Your task to perform on an android device: turn on showing notifications on the lock screen Image 0: 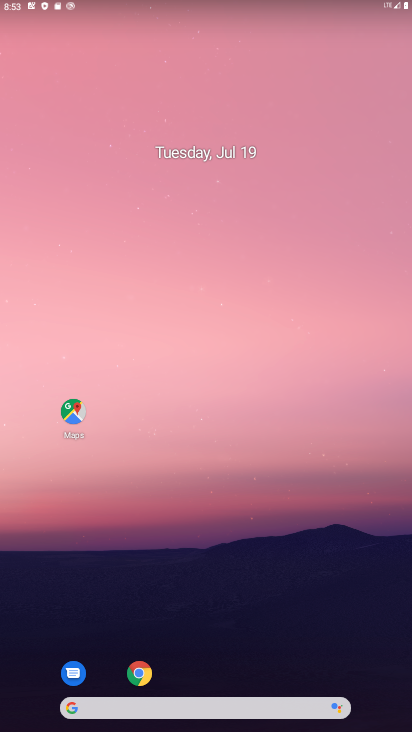
Step 0: drag from (393, 690) to (224, 47)
Your task to perform on an android device: turn on showing notifications on the lock screen Image 1: 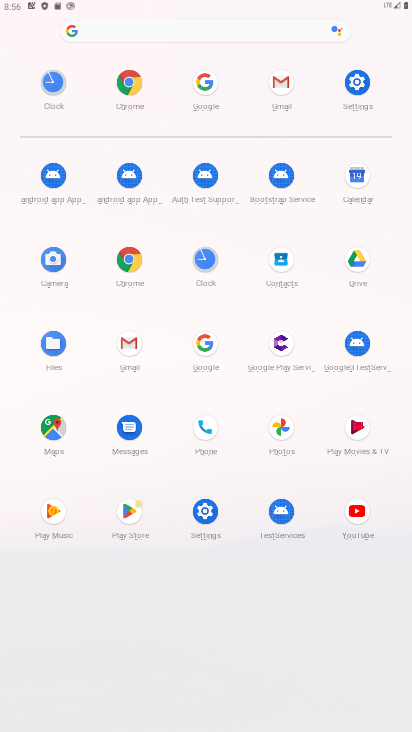
Step 1: click (210, 513)
Your task to perform on an android device: turn on showing notifications on the lock screen Image 2: 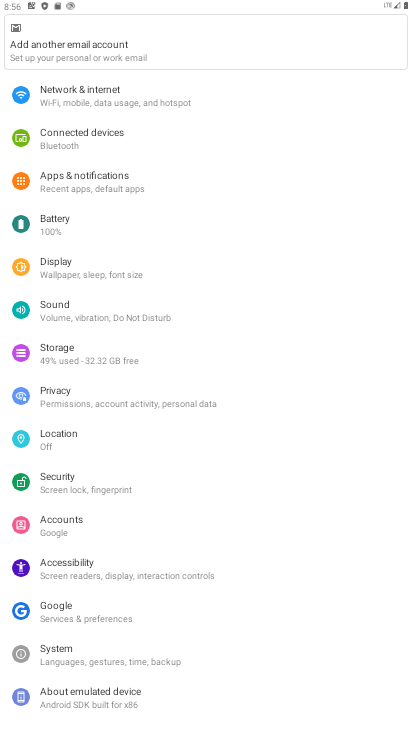
Step 2: click (97, 187)
Your task to perform on an android device: turn on showing notifications on the lock screen Image 3: 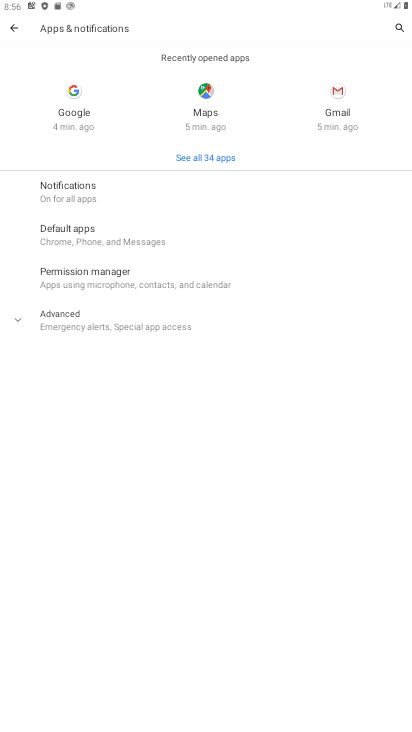
Step 3: click (99, 196)
Your task to perform on an android device: turn on showing notifications on the lock screen Image 4: 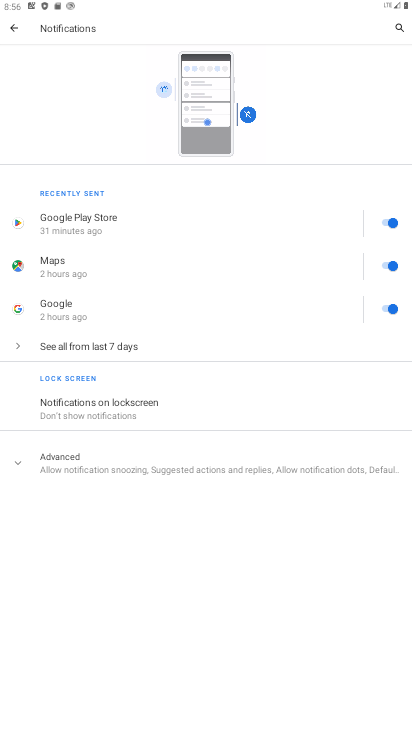
Step 4: click (101, 399)
Your task to perform on an android device: turn on showing notifications on the lock screen Image 5: 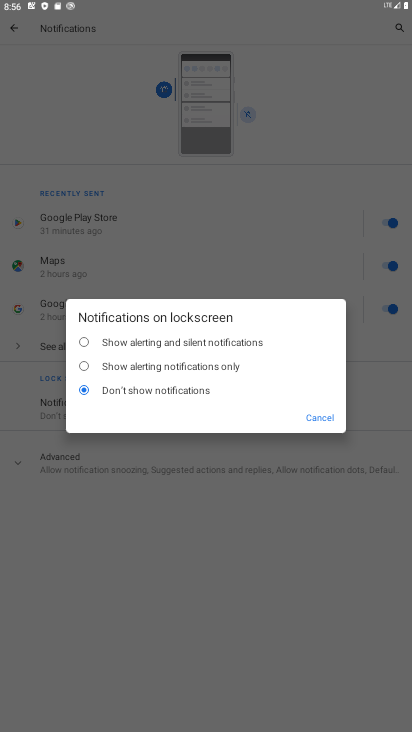
Step 5: click (88, 336)
Your task to perform on an android device: turn on showing notifications on the lock screen Image 6: 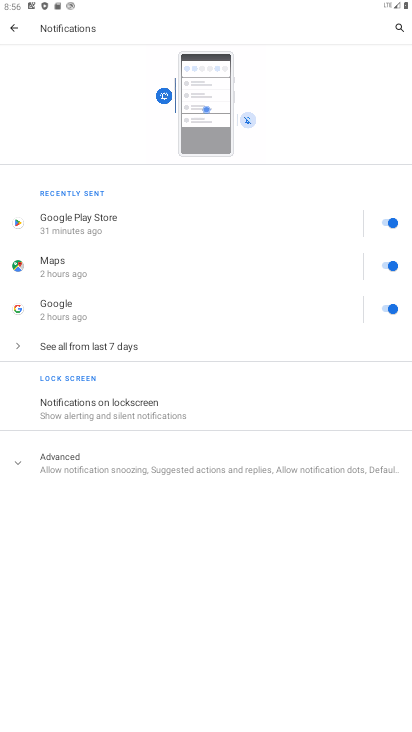
Step 6: task complete